Your task to perform on an android device: turn off wifi Image 0: 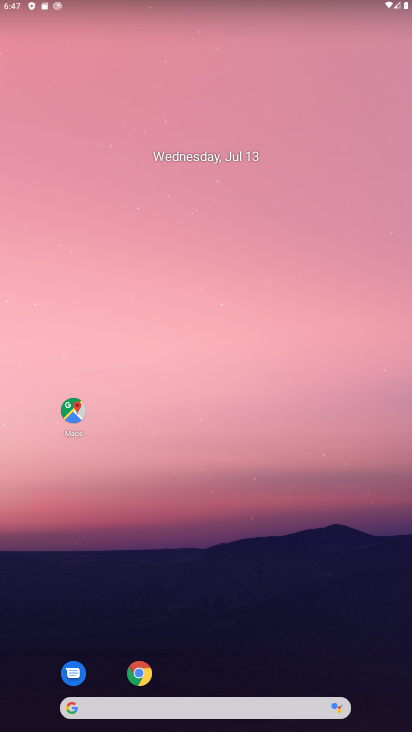
Step 0: drag from (294, 503) to (390, 16)
Your task to perform on an android device: turn off wifi Image 1: 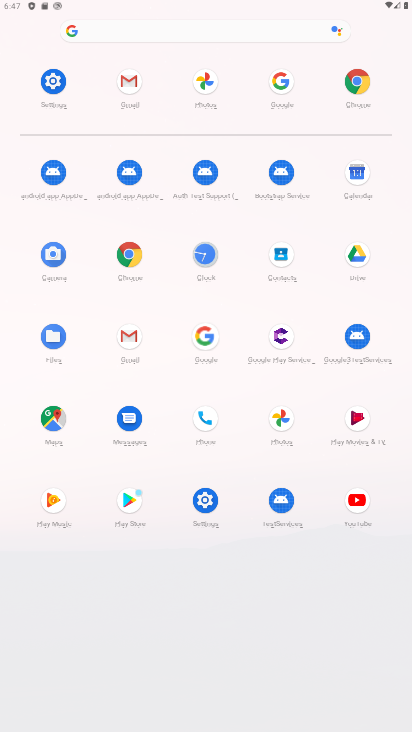
Step 1: click (62, 76)
Your task to perform on an android device: turn off wifi Image 2: 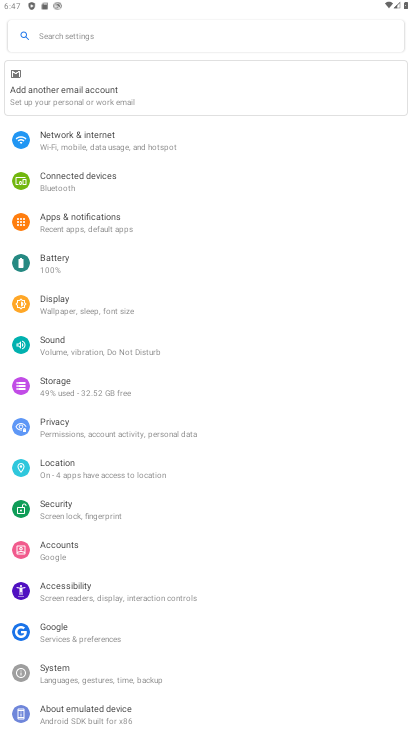
Step 2: click (118, 143)
Your task to perform on an android device: turn off wifi Image 3: 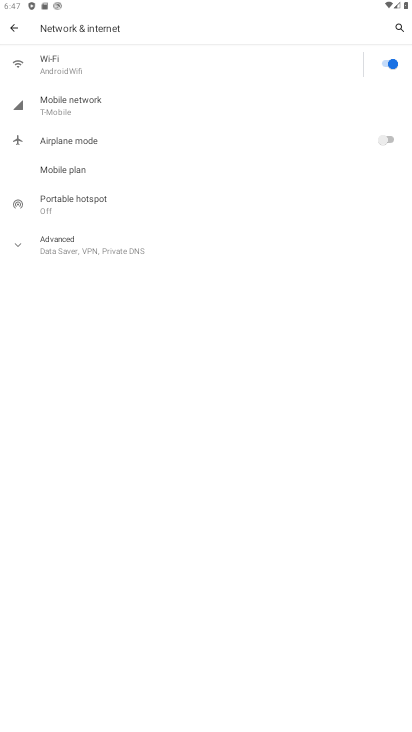
Step 3: click (393, 60)
Your task to perform on an android device: turn off wifi Image 4: 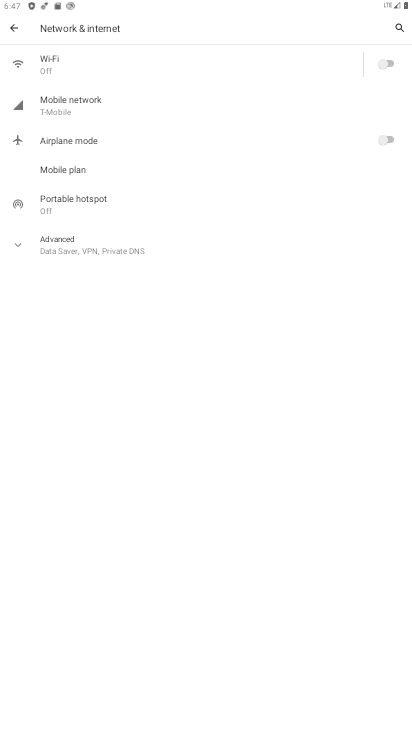
Step 4: task complete